Your task to perform on an android device: turn on location history Image 0: 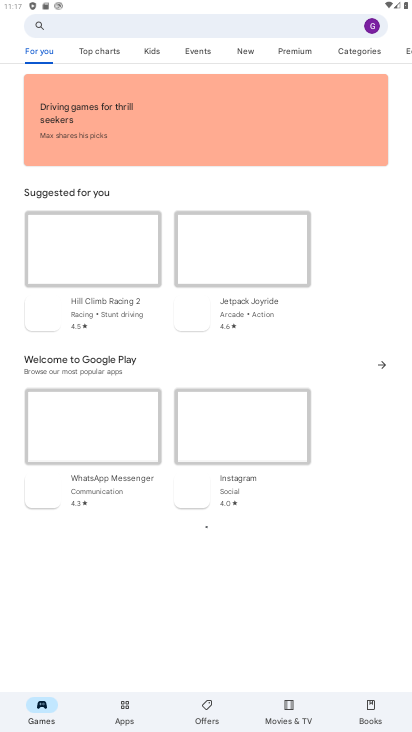
Step 0: drag from (340, 633) to (328, 388)
Your task to perform on an android device: turn on location history Image 1: 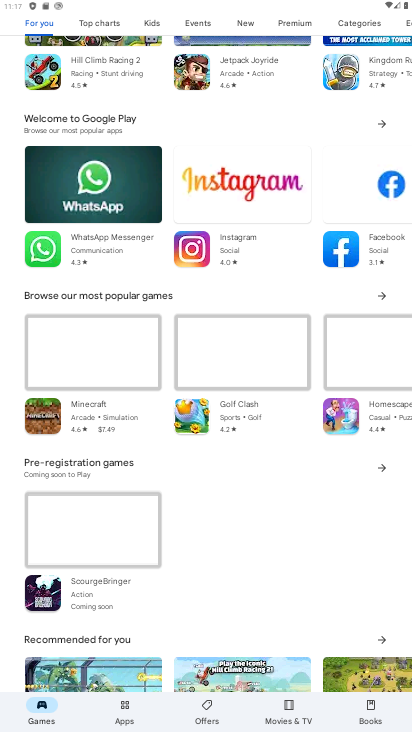
Step 1: press home button
Your task to perform on an android device: turn on location history Image 2: 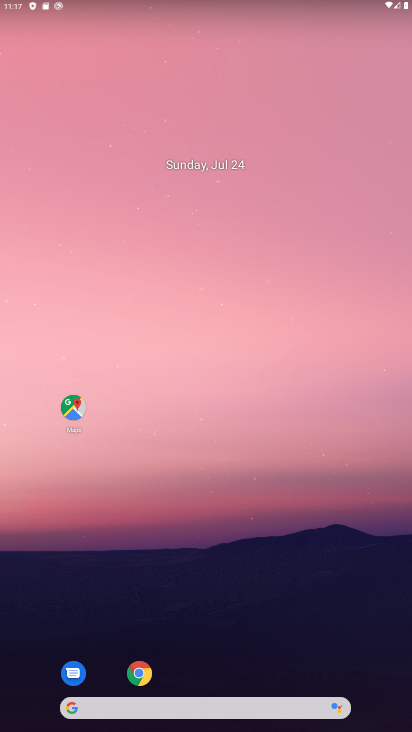
Step 2: drag from (334, 664) to (270, 100)
Your task to perform on an android device: turn on location history Image 3: 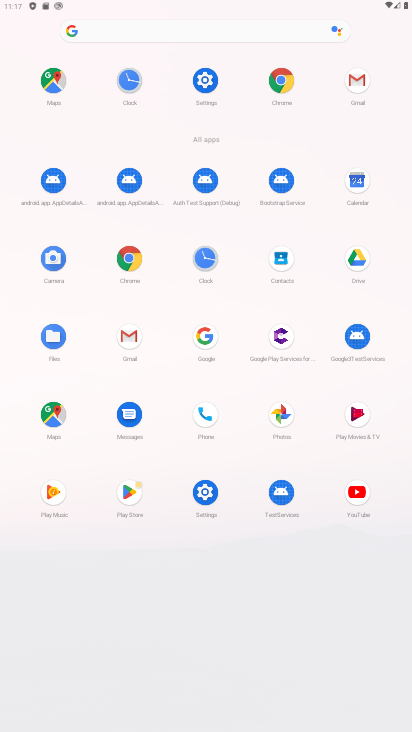
Step 3: click (209, 81)
Your task to perform on an android device: turn on location history Image 4: 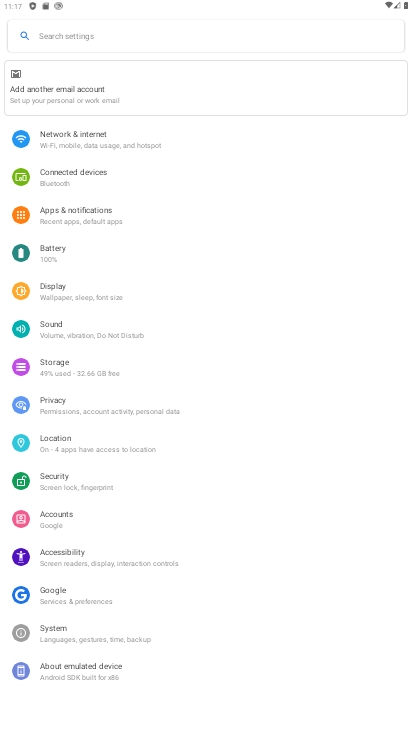
Step 4: click (92, 452)
Your task to perform on an android device: turn on location history Image 5: 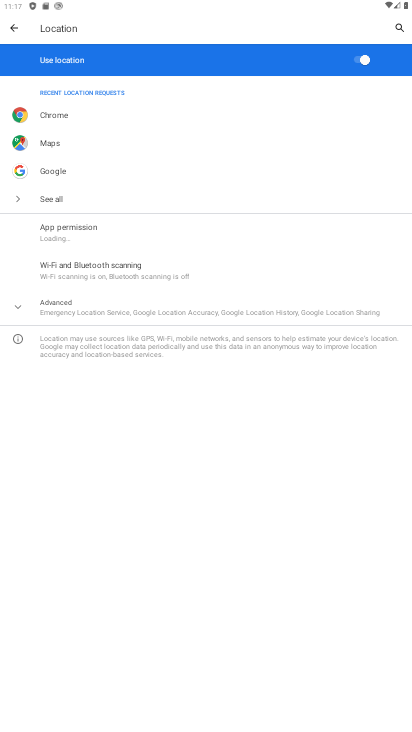
Step 5: click (109, 317)
Your task to perform on an android device: turn on location history Image 6: 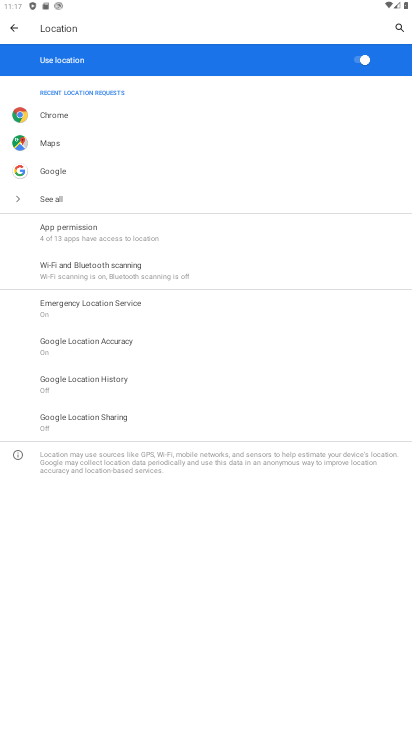
Step 6: click (119, 380)
Your task to perform on an android device: turn on location history Image 7: 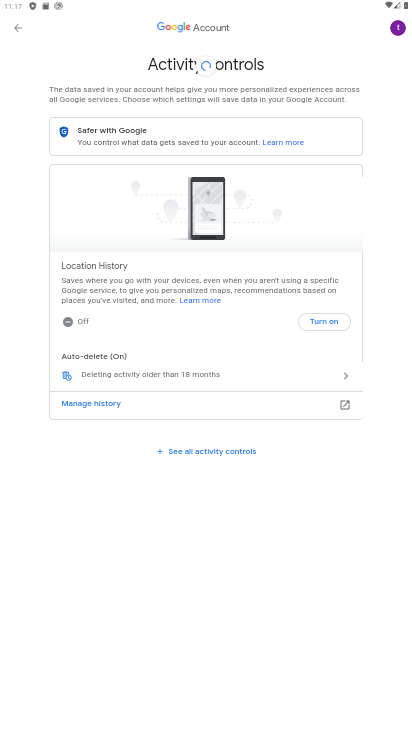
Step 7: click (314, 326)
Your task to perform on an android device: turn on location history Image 8: 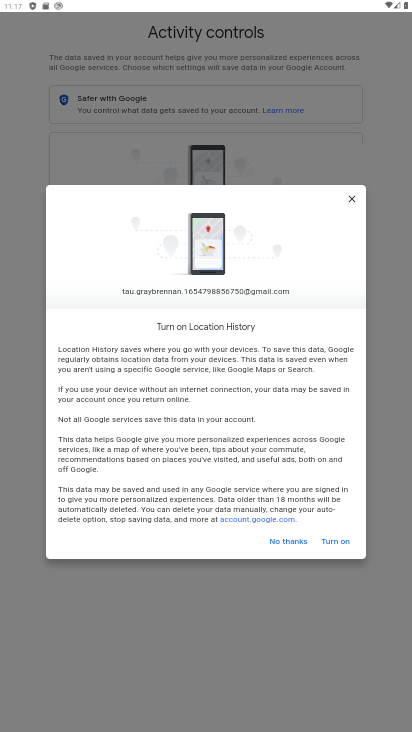
Step 8: click (337, 536)
Your task to perform on an android device: turn on location history Image 9: 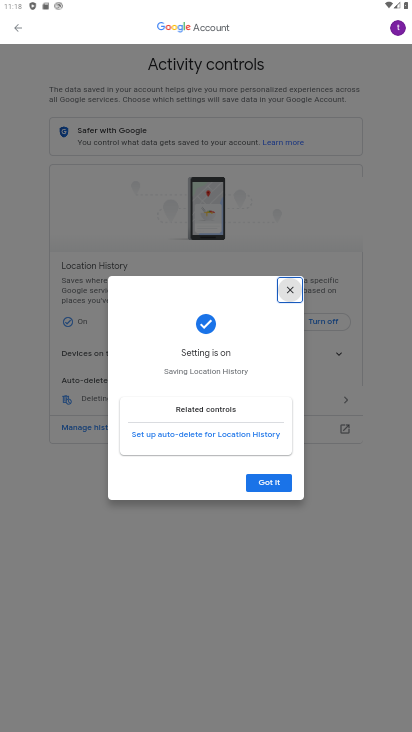
Step 9: task complete